Your task to perform on an android device: remove spam from my inbox in the gmail app Image 0: 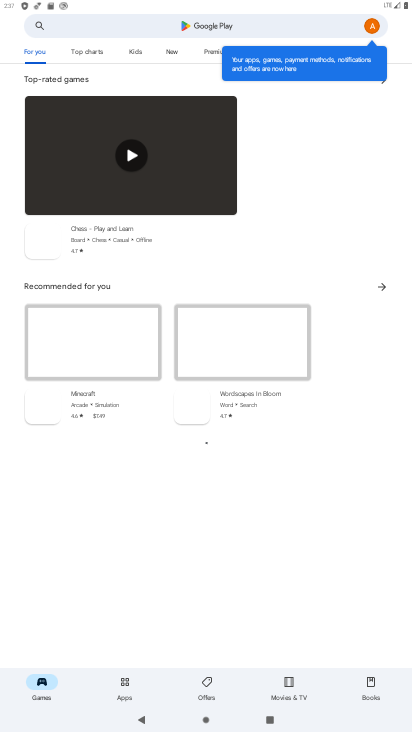
Step 0: press home button
Your task to perform on an android device: remove spam from my inbox in the gmail app Image 1: 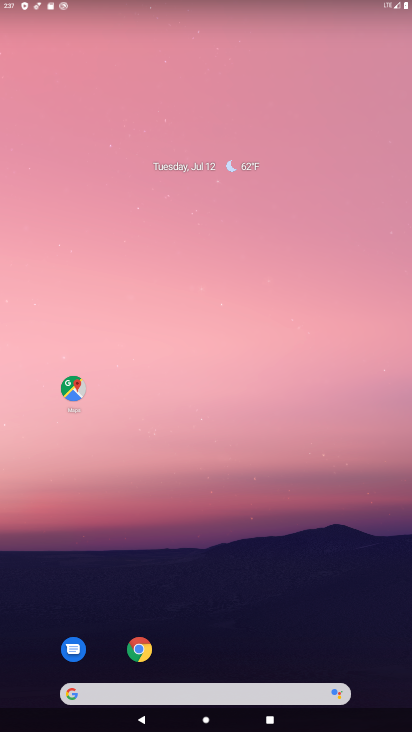
Step 1: drag from (238, 652) to (291, 92)
Your task to perform on an android device: remove spam from my inbox in the gmail app Image 2: 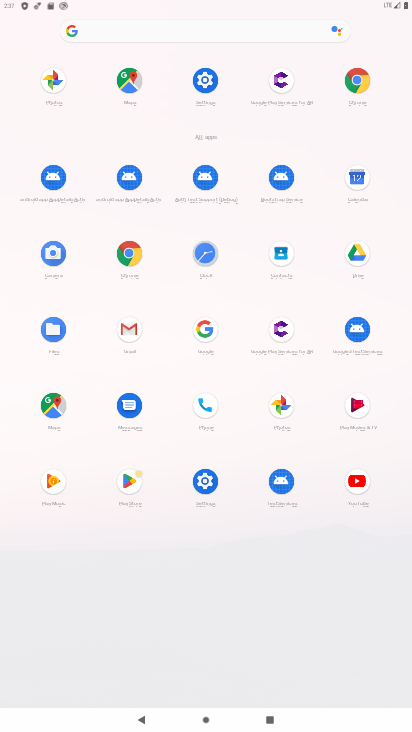
Step 2: click (121, 323)
Your task to perform on an android device: remove spam from my inbox in the gmail app Image 3: 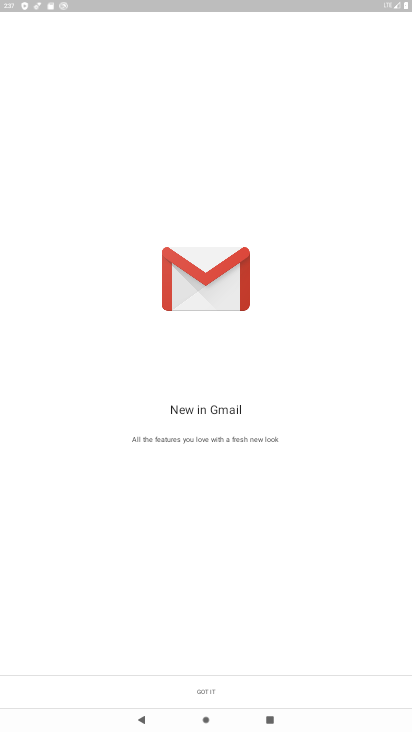
Step 3: click (213, 677)
Your task to perform on an android device: remove spam from my inbox in the gmail app Image 4: 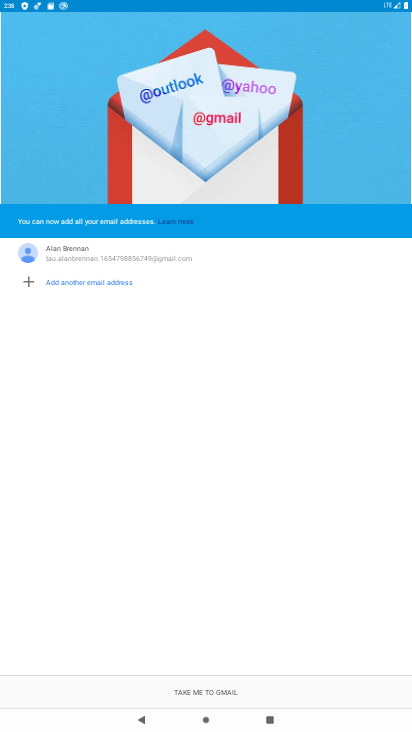
Step 4: click (206, 689)
Your task to perform on an android device: remove spam from my inbox in the gmail app Image 5: 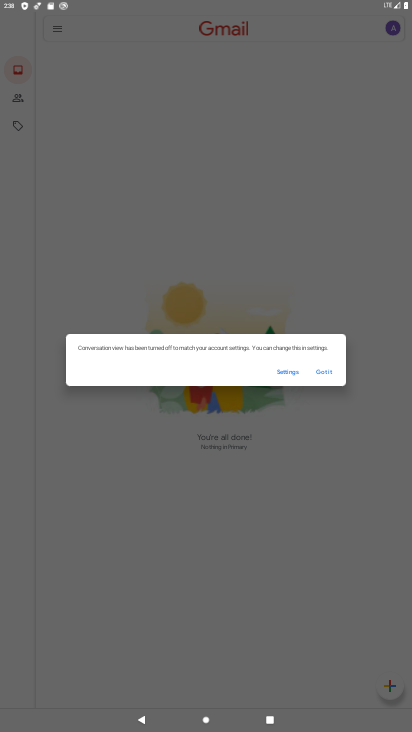
Step 5: click (329, 381)
Your task to perform on an android device: remove spam from my inbox in the gmail app Image 6: 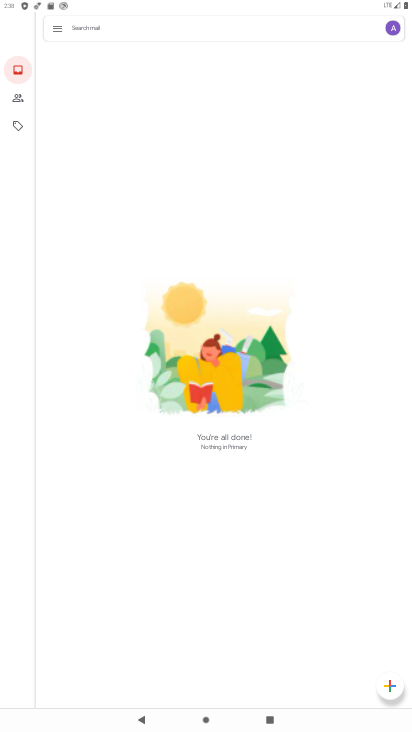
Step 6: click (48, 19)
Your task to perform on an android device: remove spam from my inbox in the gmail app Image 7: 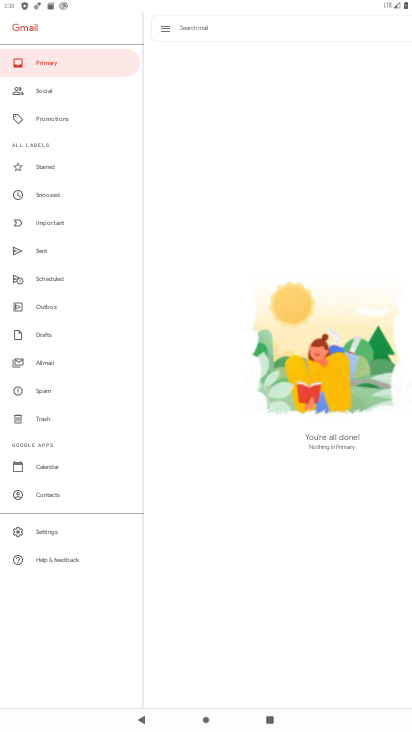
Step 7: click (77, 391)
Your task to perform on an android device: remove spam from my inbox in the gmail app Image 8: 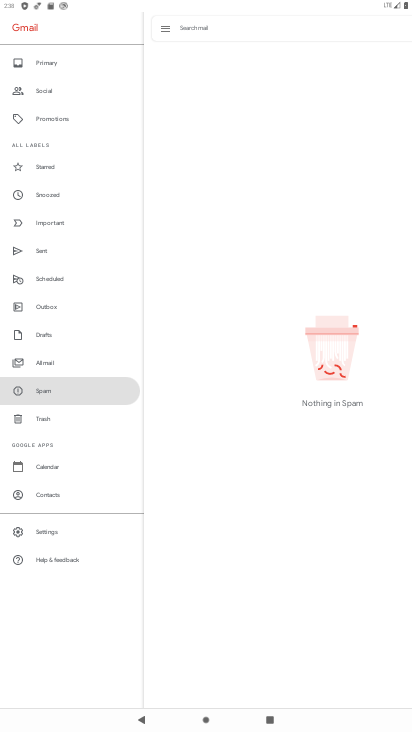
Step 8: task complete